Your task to perform on an android device: turn off airplane mode Image 0: 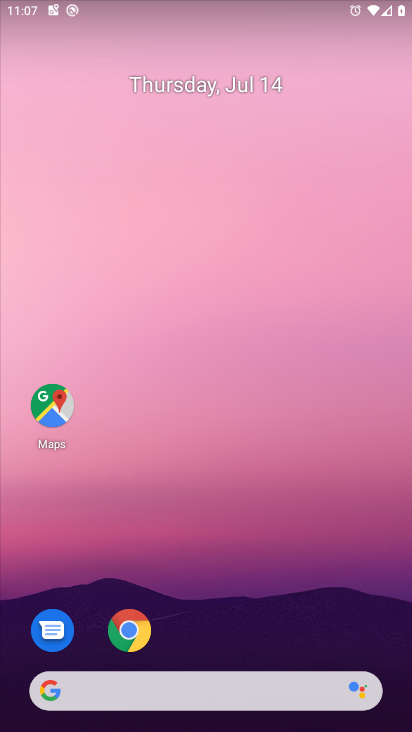
Step 0: drag from (60, 686) to (148, 265)
Your task to perform on an android device: turn off airplane mode Image 1: 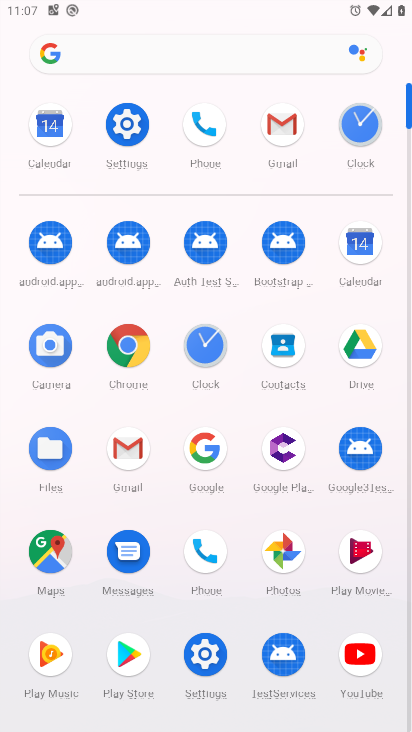
Step 1: click (199, 661)
Your task to perform on an android device: turn off airplane mode Image 2: 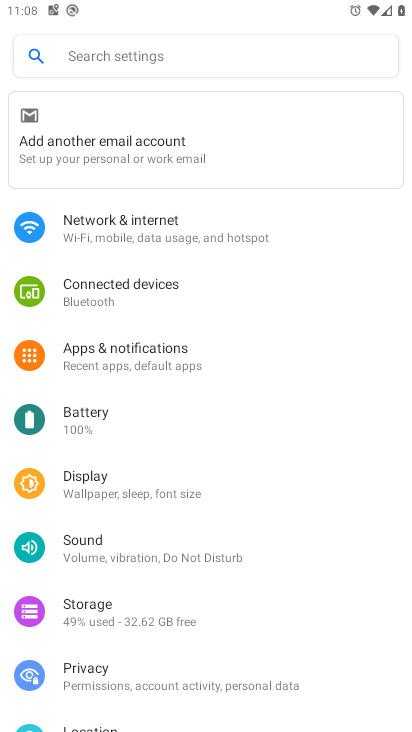
Step 2: click (137, 222)
Your task to perform on an android device: turn off airplane mode Image 3: 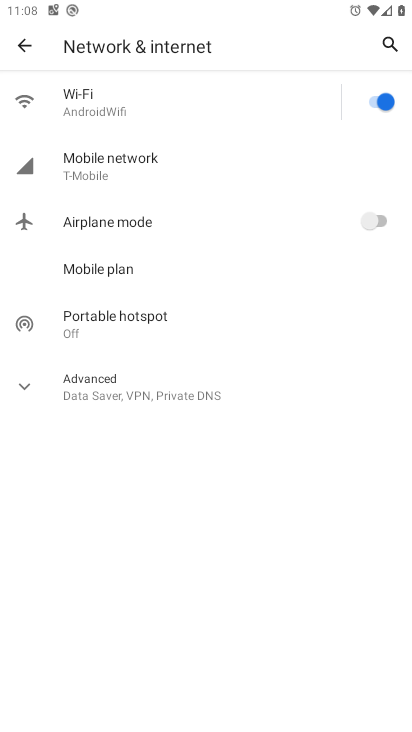
Step 3: click (361, 220)
Your task to perform on an android device: turn off airplane mode Image 4: 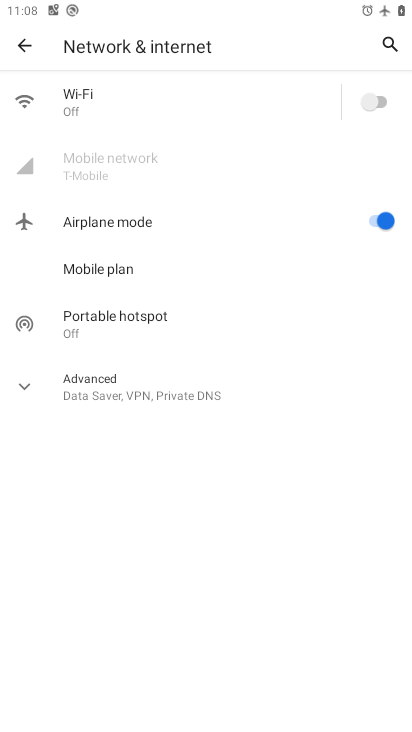
Step 4: task complete